Your task to perform on an android device: Open Yahoo.com Image 0: 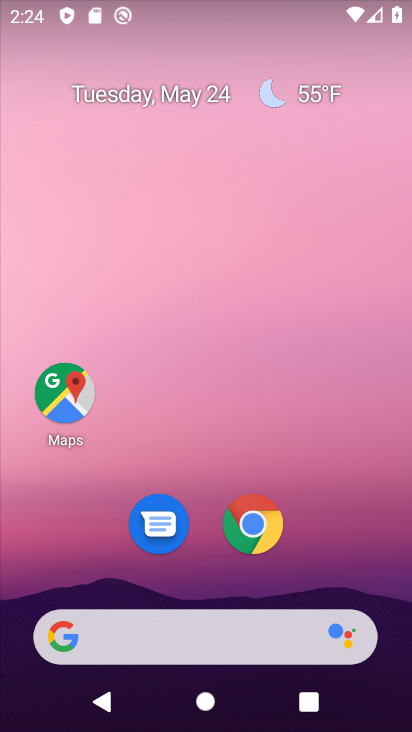
Step 0: click (201, 643)
Your task to perform on an android device: Open Yahoo.com Image 1: 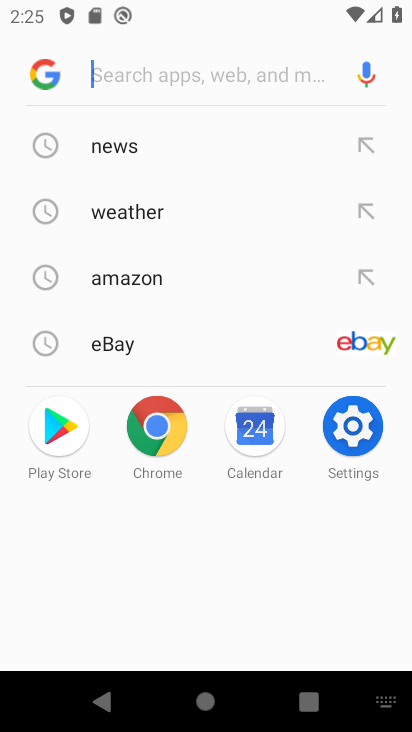
Step 1: type "yahoo.com"
Your task to perform on an android device: Open Yahoo.com Image 2: 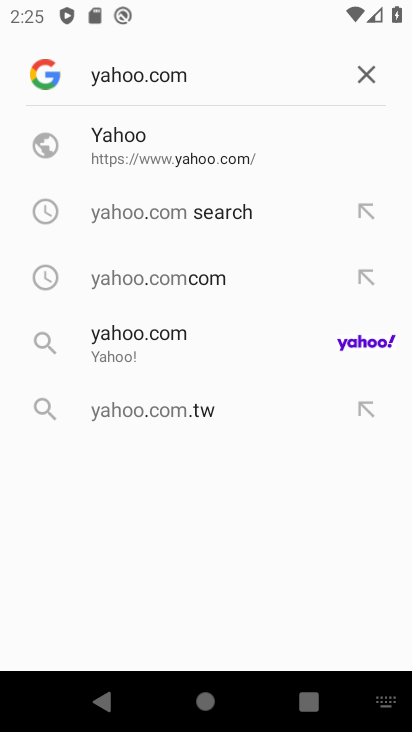
Step 2: click (174, 338)
Your task to perform on an android device: Open Yahoo.com Image 3: 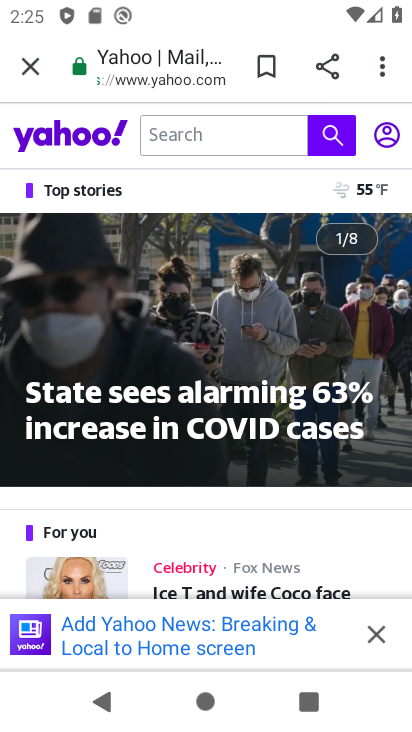
Step 3: task complete